Your task to perform on an android device: Open the web browser Image 0: 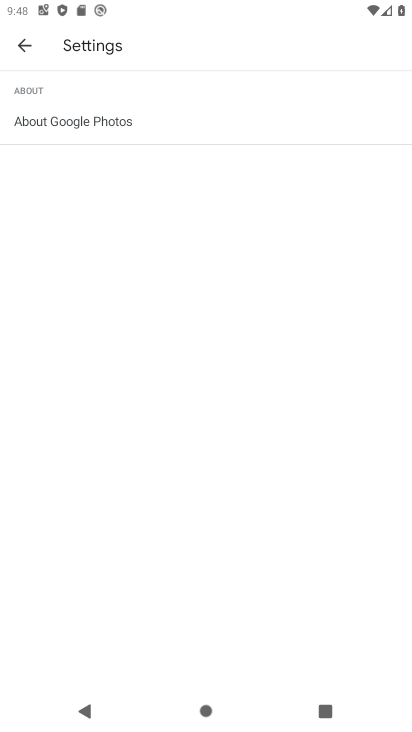
Step 0: press home button
Your task to perform on an android device: Open the web browser Image 1: 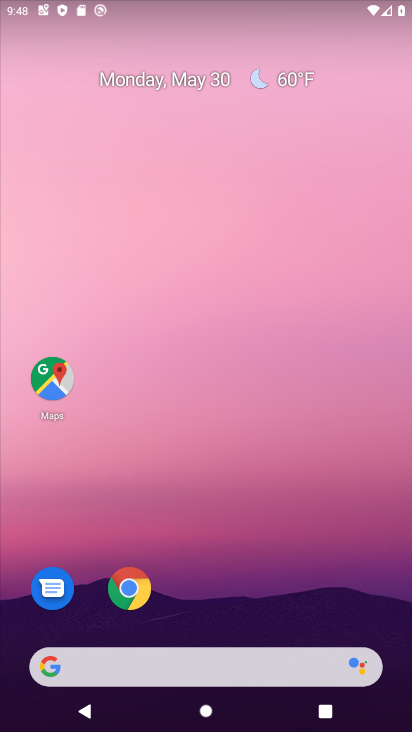
Step 1: click (143, 594)
Your task to perform on an android device: Open the web browser Image 2: 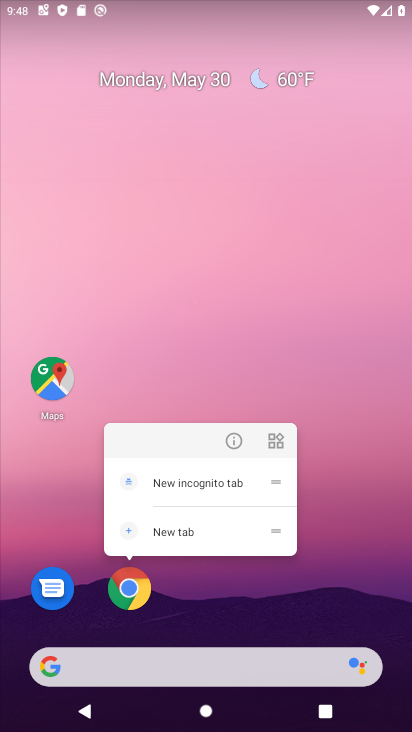
Step 2: click (115, 591)
Your task to perform on an android device: Open the web browser Image 3: 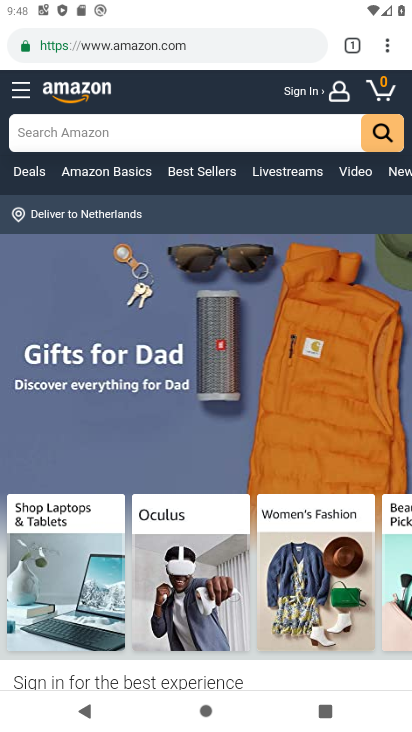
Step 3: task complete